Your task to perform on an android device: change keyboard looks Image 0: 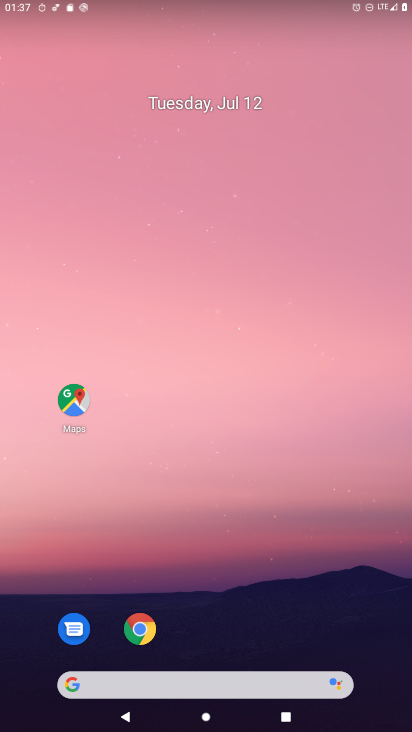
Step 0: drag from (18, 687) to (152, 92)
Your task to perform on an android device: change keyboard looks Image 1: 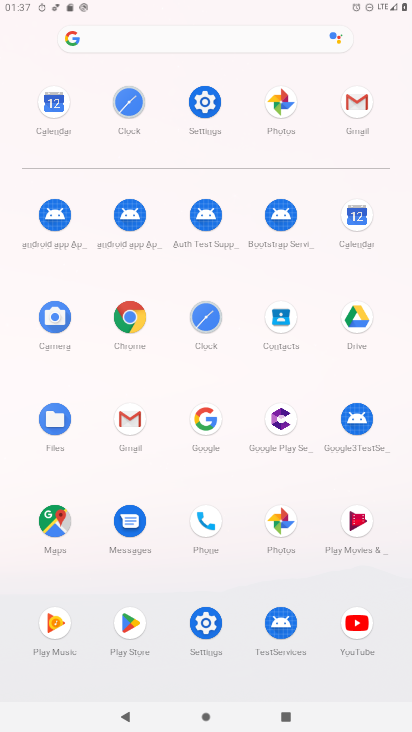
Step 1: click (213, 640)
Your task to perform on an android device: change keyboard looks Image 2: 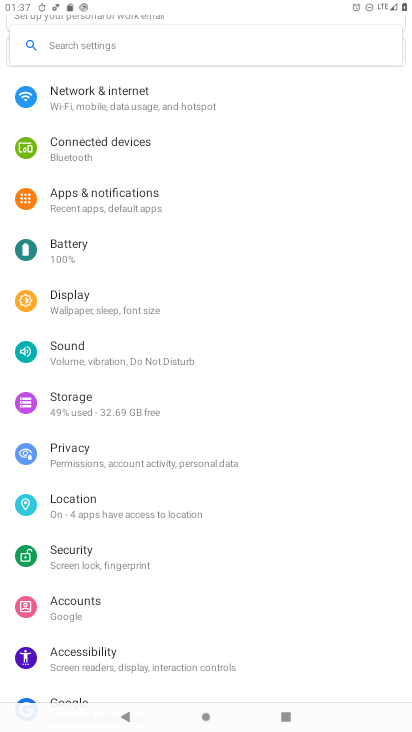
Step 2: drag from (168, 606) to (188, 263)
Your task to perform on an android device: change keyboard looks Image 3: 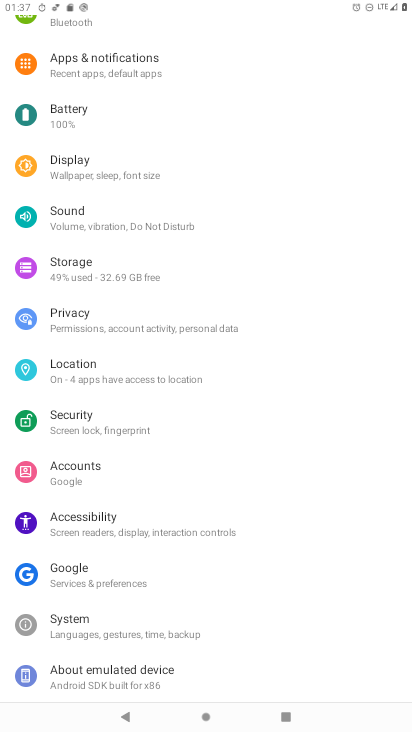
Step 3: click (103, 527)
Your task to perform on an android device: change keyboard looks Image 4: 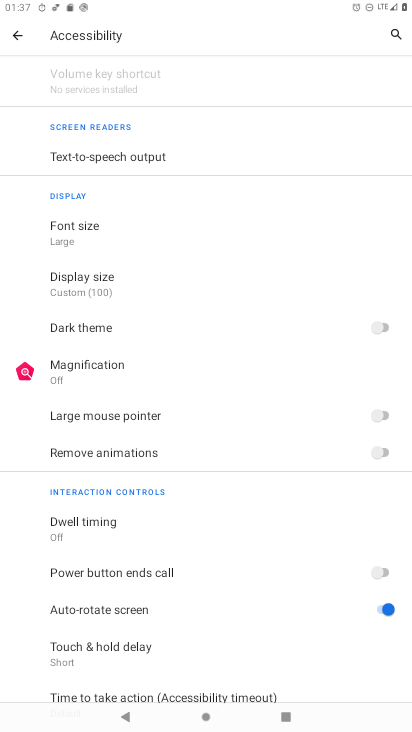
Step 4: task complete